Your task to perform on an android device: turn notification dots on Image 0: 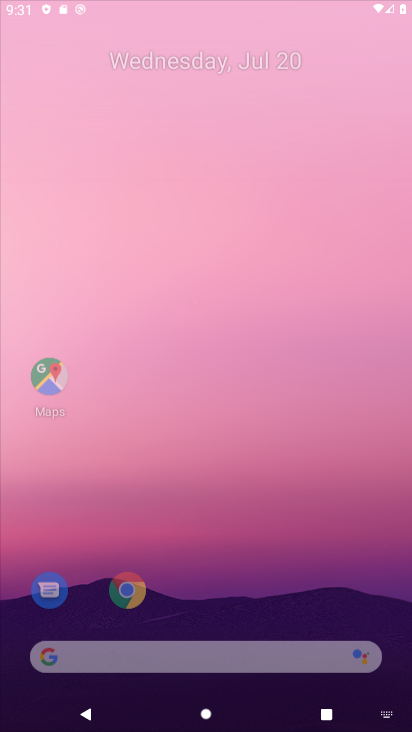
Step 0: drag from (248, 333) to (240, 84)
Your task to perform on an android device: turn notification dots on Image 1: 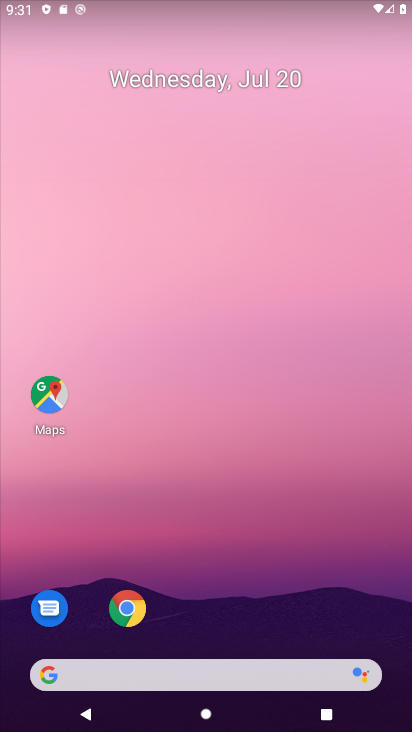
Step 1: drag from (299, 668) to (266, 93)
Your task to perform on an android device: turn notification dots on Image 2: 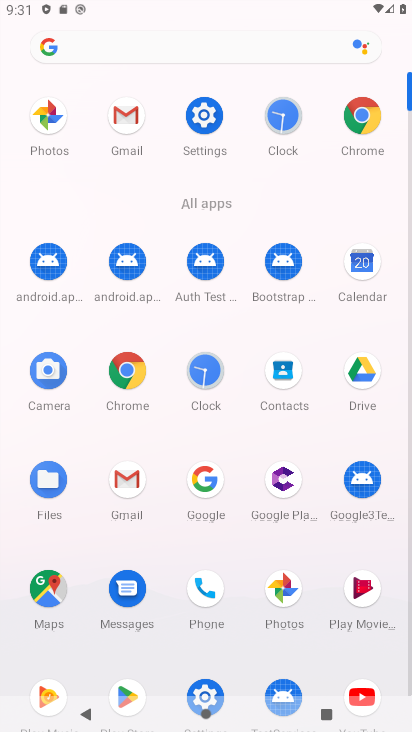
Step 2: click (201, 114)
Your task to perform on an android device: turn notification dots on Image 3: 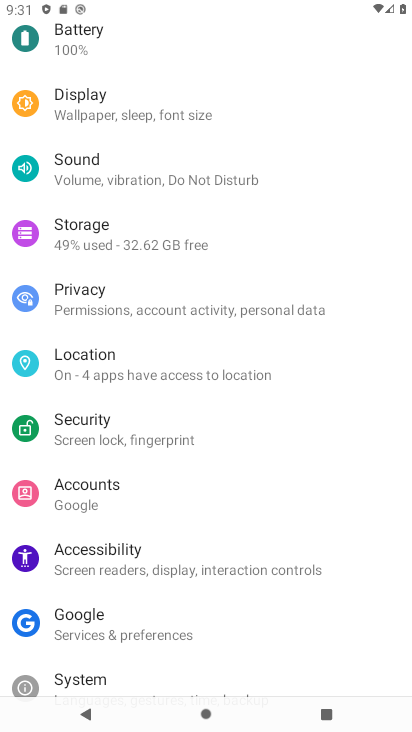
Step 3: drag from (145, 585) to (156, 259)
Your task to perform on an android device: turn notification dots on Image 4: 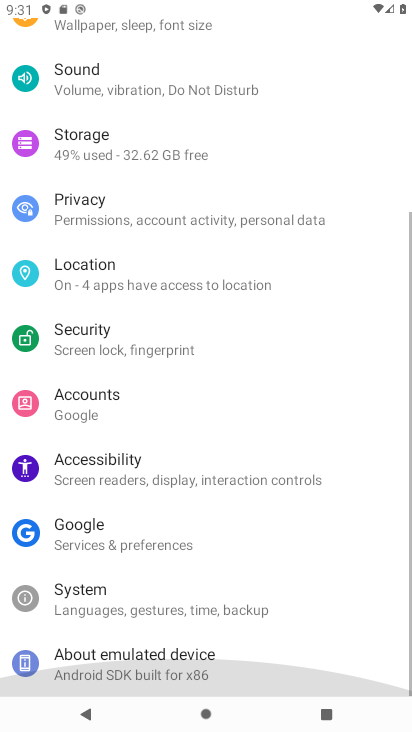
Step 4: drag from (178, 514) to (180, 276)
Your task to perform on an android device: turn notification dots on Image 5: 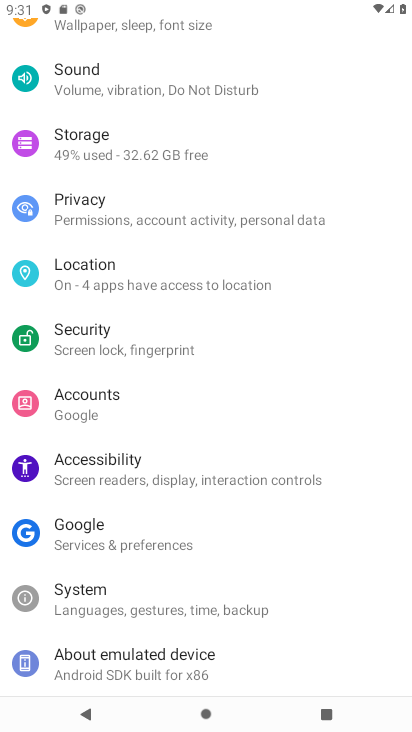
Step 5: drag from (139, 231) to (171, 598)
Your task to perform on an android device: turn notification dots on Image 6: 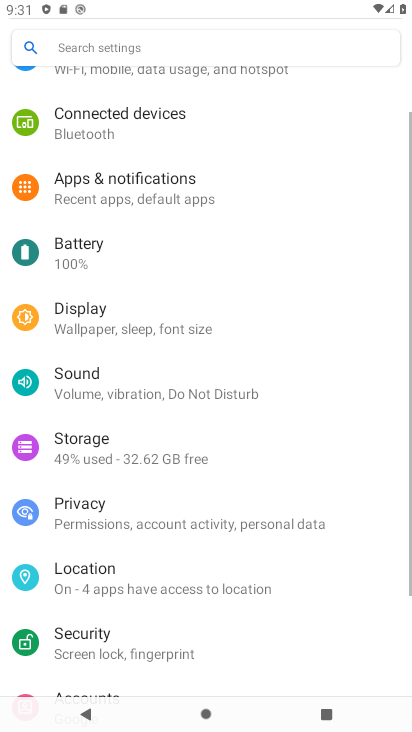
Step 6: drag from (106, 231) to (139, 470)
Your task to perform on an android device: turn notification dots on Image 7: 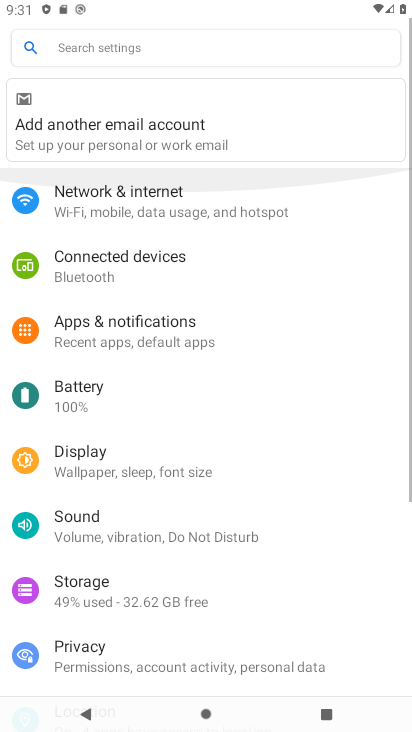
Step 7: drag from (133, 226) to (170, 469)
Your task to perform on an android device: turn notification dots on Image 8: 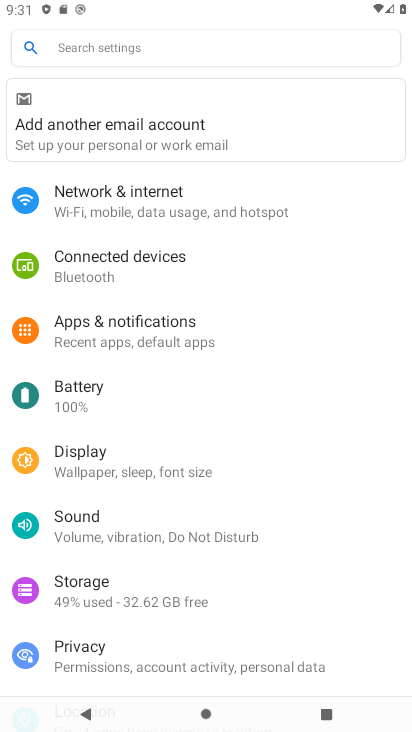
Step 8: click (103, 333)
Your task to perform on an android device: turn notification dots on Image 9: 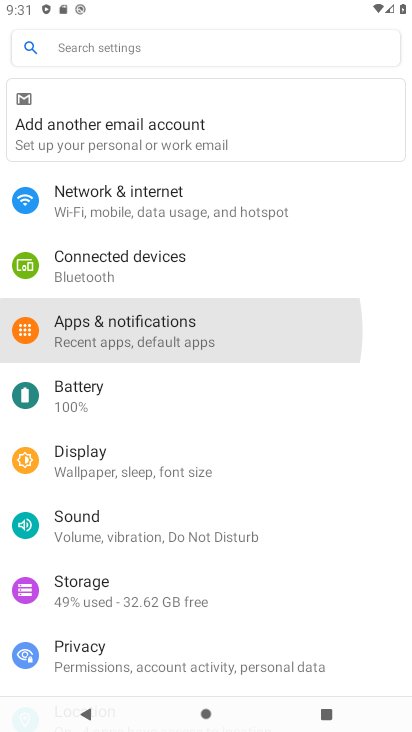
Step 9: click (106, 336)
Your task to perform on an android device: turn notification dots on Image 10: 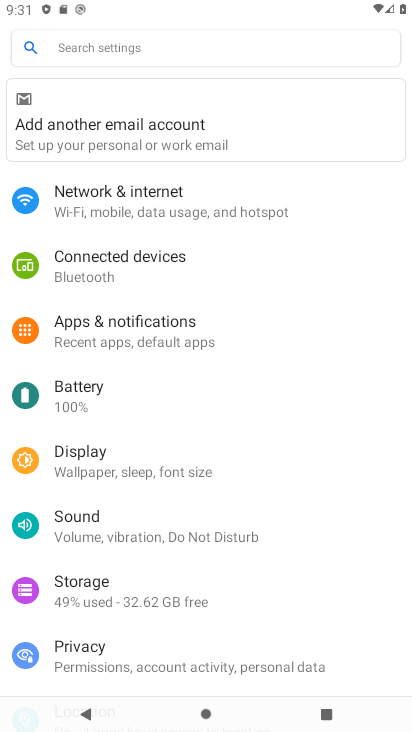
Step 10: click (106, 337)
Your task to perform on an android device: turn notification dots on Image 11: 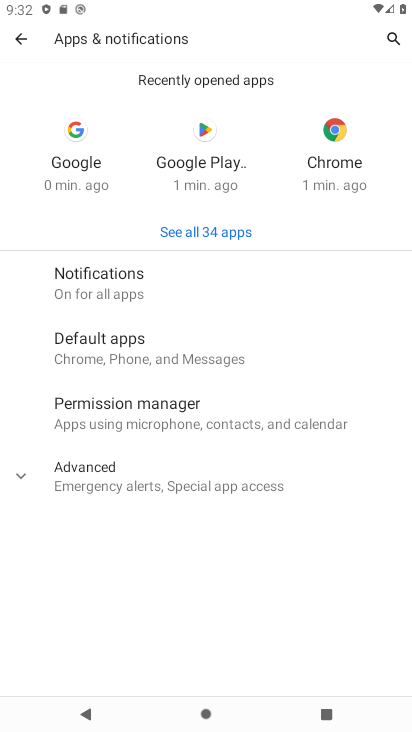
Step 11: click (102, 287)
Your task to perform on an android device: turn notification dots on Image 12: 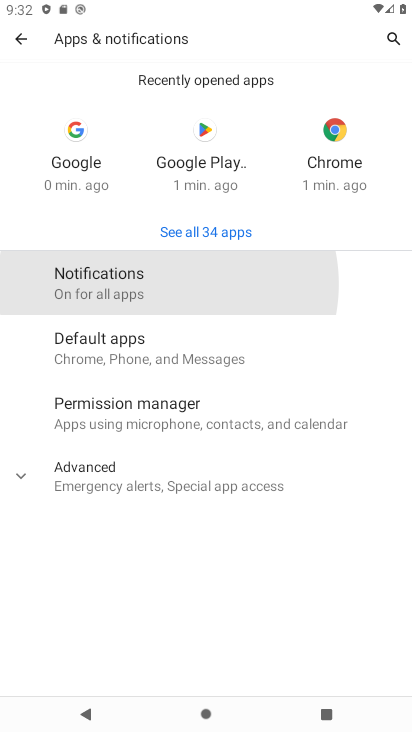
Step 12: click (101, 288)
Your task to perform on an android device: turn notification dots on Image 13: 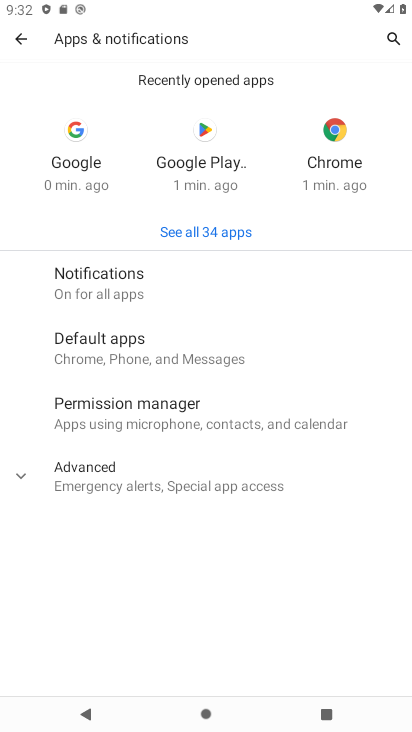
Step 13: click (102, 287)
Your task to perform on an android device: turn notification dots on Image 14: 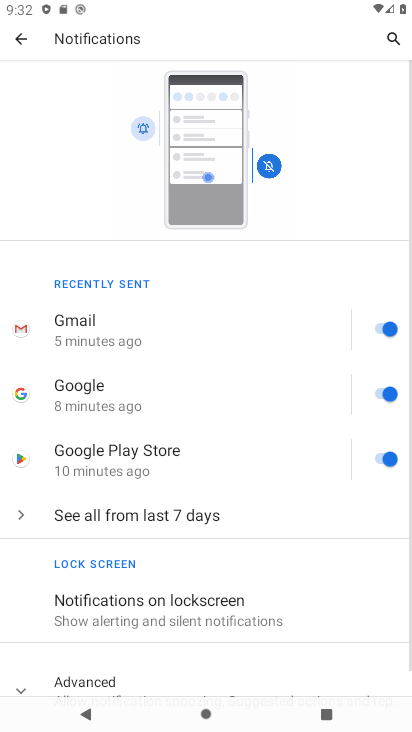
Step 14: drag from (118, 586) to (140, 276)
Your task to perform on an android device: turn notification dots on Image 15: 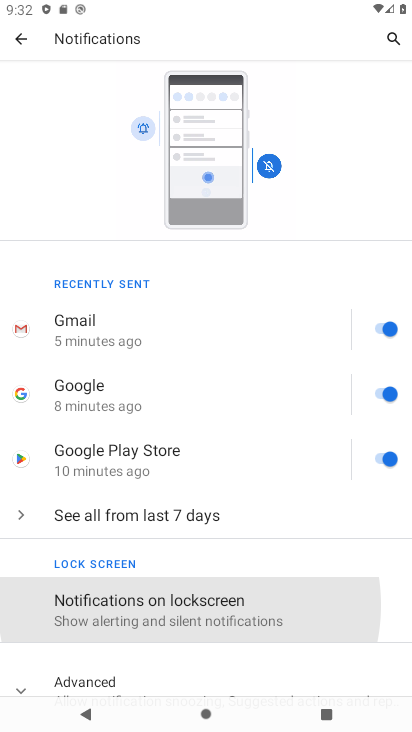
Step 15: drag from (156, 482) to (159, 342)
Your task to perform on an android device: turn notification dots on Image 16: 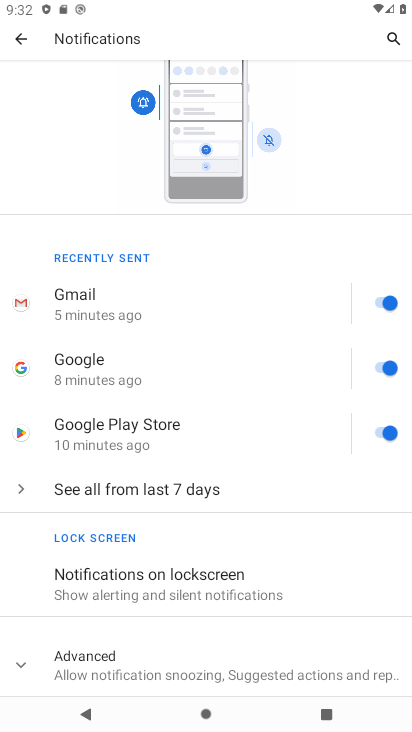
Step 16: click (131, 658)
Your task to perform on an android device: turn notification dots on Image 17: 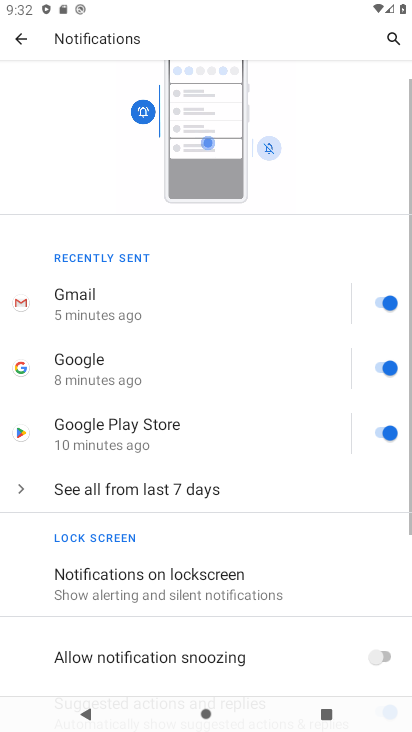
Step 17: drag from (203, 621) to (211, 261)
Your task to perform on an android device: turn notification dots on Image 18: 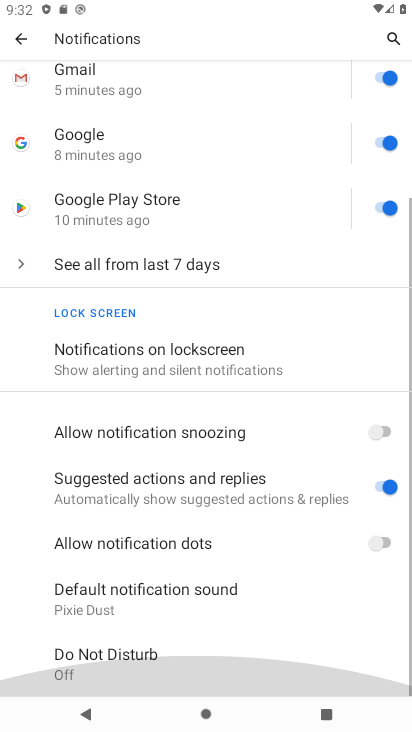
Step 18: drag from (214, 490) to (214, 226)
Your task to perform on an android device: turn notification dots on Image 19: 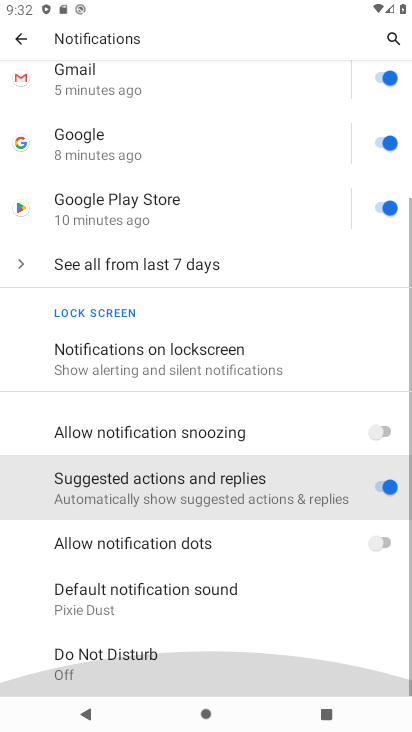
Step 19: drag from (196, 607) to (196, 277)
Your task to perform on an android device: turn notification dots on Image 20: 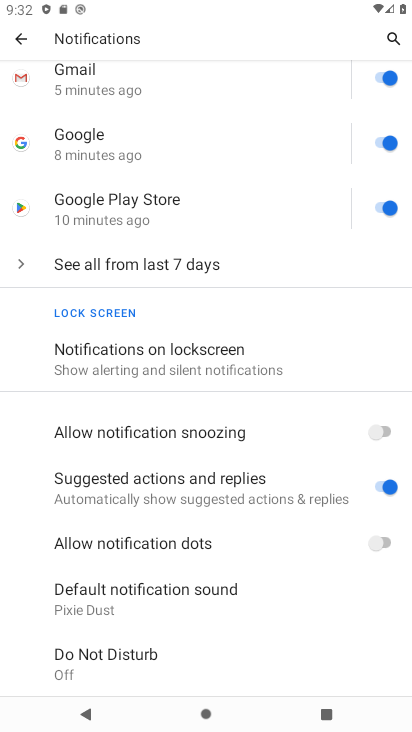
Step 20: click (380, 541)
Your task to perform on an android device: turn notification dots on Image 21: 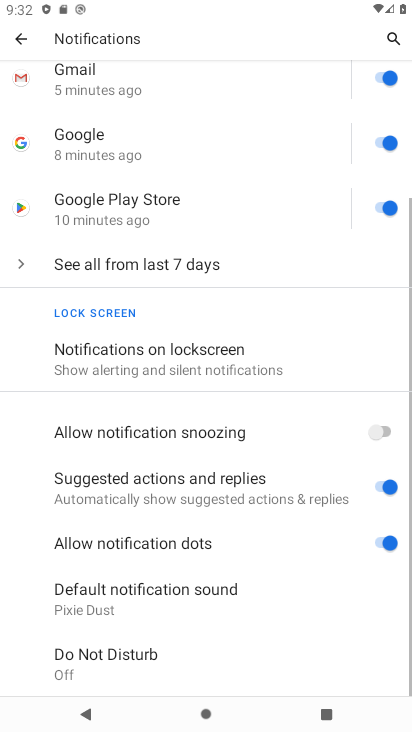
Step 21: task complete